Your task to perform on an android device: Open Google Maps Image 0: 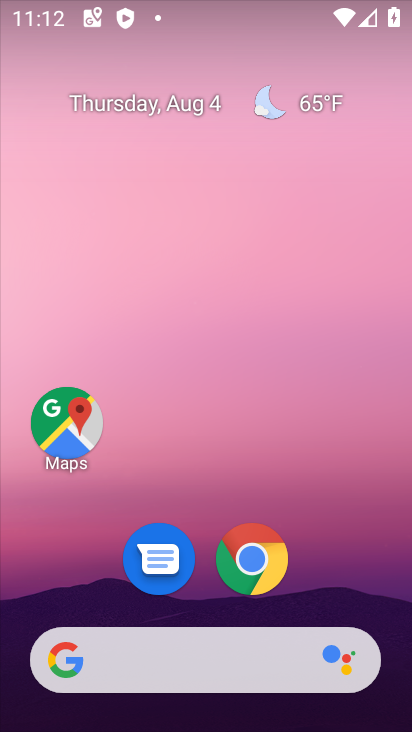
Step 0: drag from (337, 576) to (326, 257)
Your task to perform on an android device: Open Google Maps Image 1: 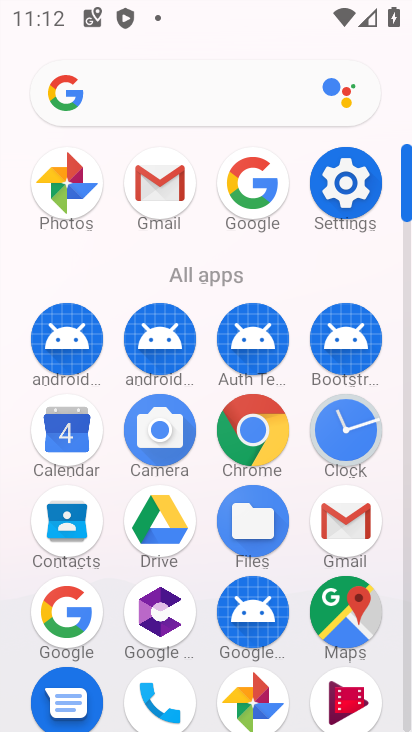
Step 1: click (324, 613)
Your task to perform on an android device: Open Google Maps Image 2: 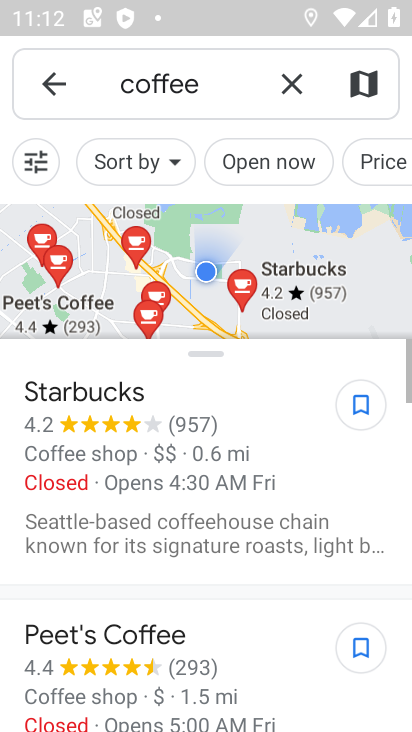
Step 2: click (53, 81)
Your task to perform on an android device: Open Google Maps Image 3: 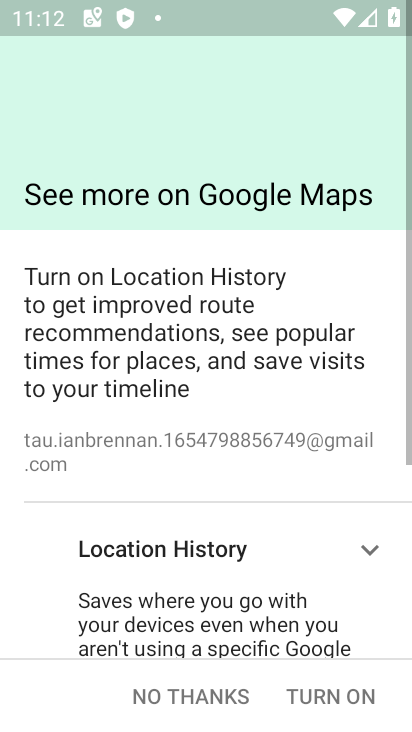
Step 3: task complete